Your task to perform on an android device: set the stopwatch Image 0: 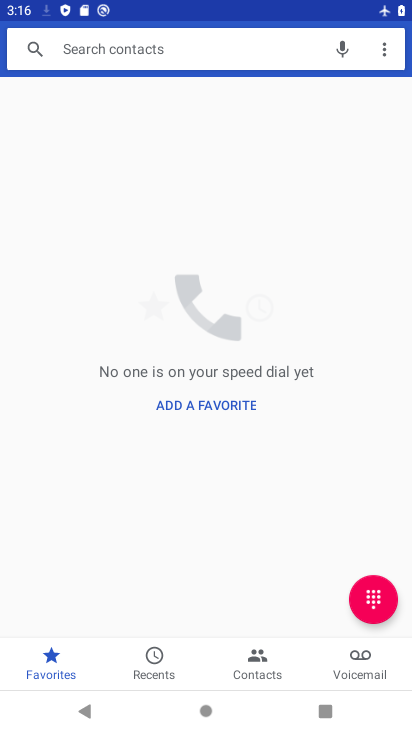
Step 0: press back button
Your task to perform on an android device: set the stopwatch Image 1: 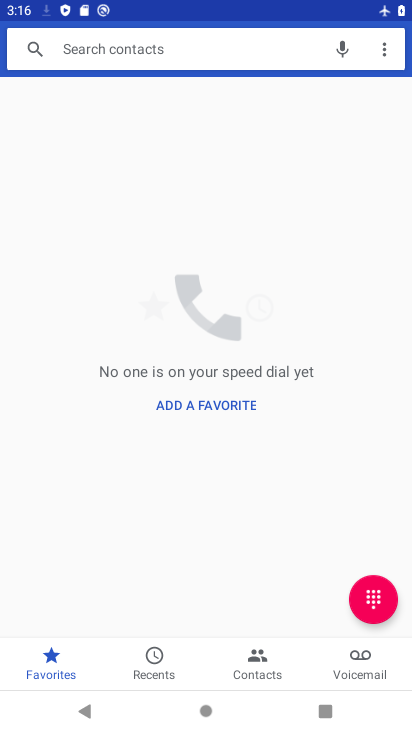
Step 1: press back button
Your task to perform on an android device: set the stopwatch Image 2: 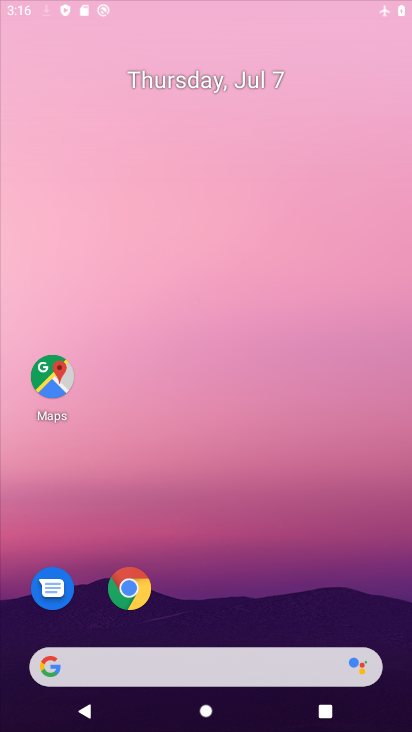
Step 2: press back button
Your task to perform on an android device: set the stopwatch Image 3: 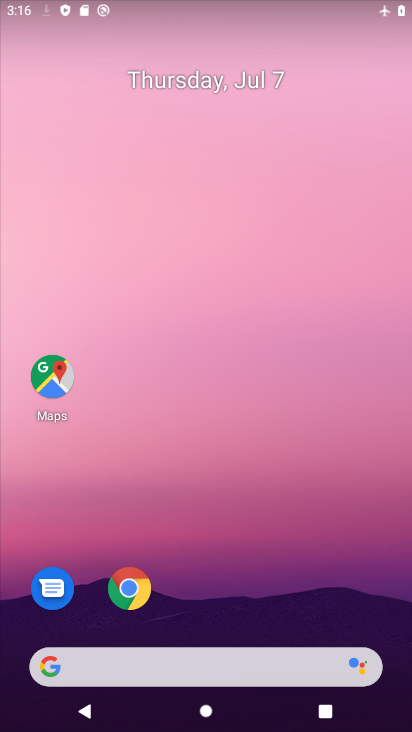
Step 3: drag from (323, 437) to (318, 385)
Your task to perform on an android device: set the stopwatch Image 4: 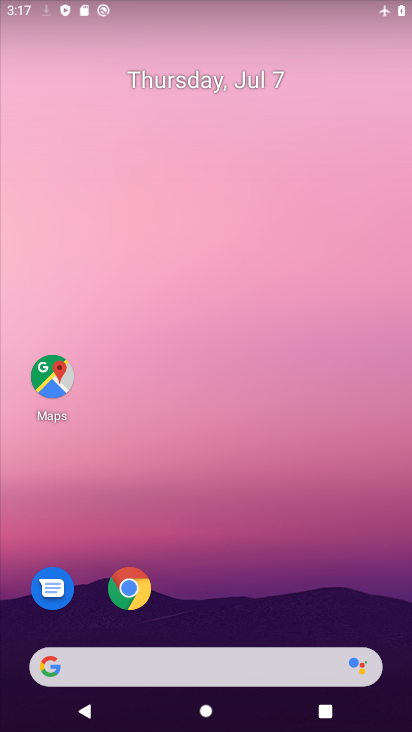
Step 4: press back button
Your task to perform on an android device: set the stopwatch Image 5: 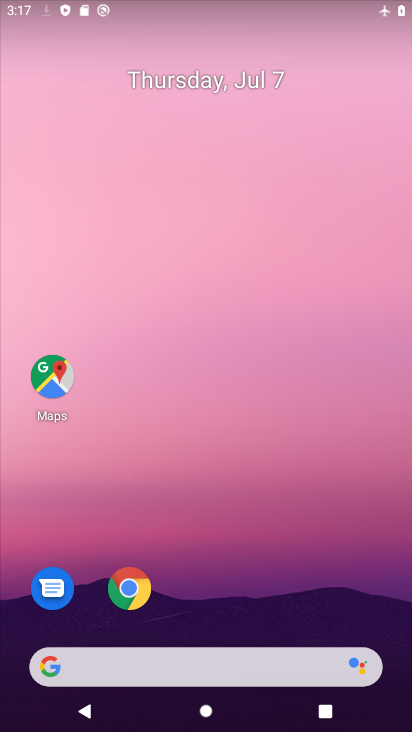
Step 5: drag from (299, 609) to (234, 194)
Your task to perform on an android device: set the stopwatch Image 6: 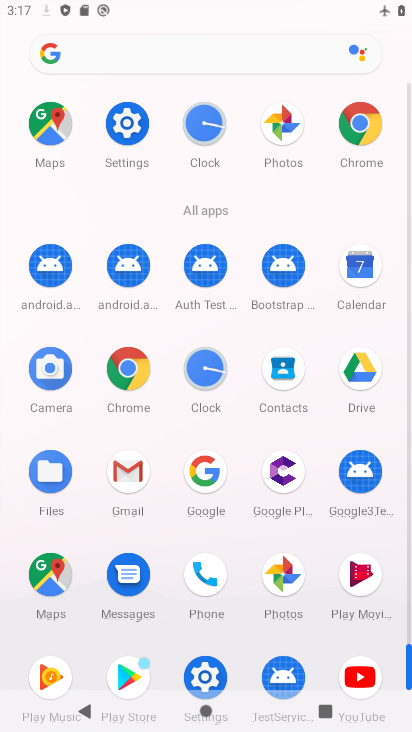
Step 6: drag from (308, 571) to (99, 198)
Your task to perform on an android device: set the stopwatch Image 7: 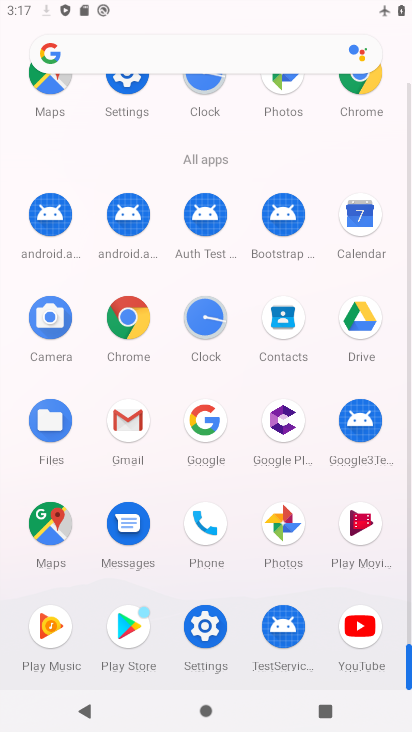
Step 7: click (218, 367)
Your task to perform on an android device: set the stopwatch Image 8: 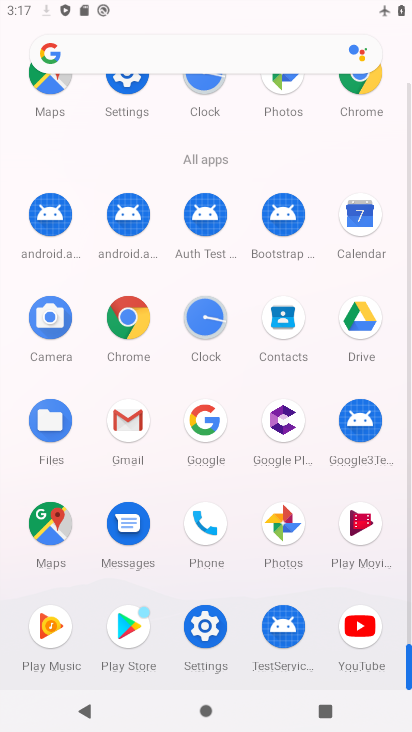
Step 8: click (203, 319)
Your task to perform on an android device: set the stopwatch Image 9: 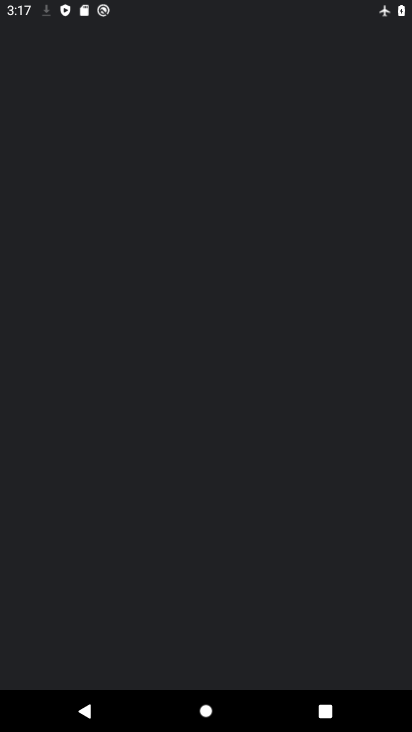
Step 9: click (207, 312)
Your task to perform on an android device: set the stopwatch Image 10: 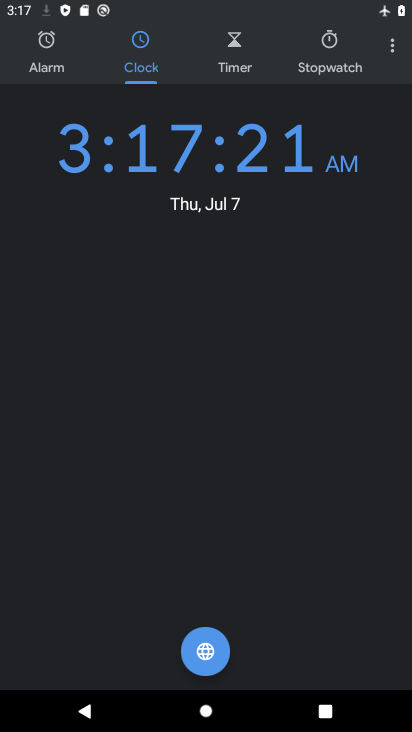
Step 10: click (211, 312)
Your task to perform on an android device: set the stopwatch Image 11: 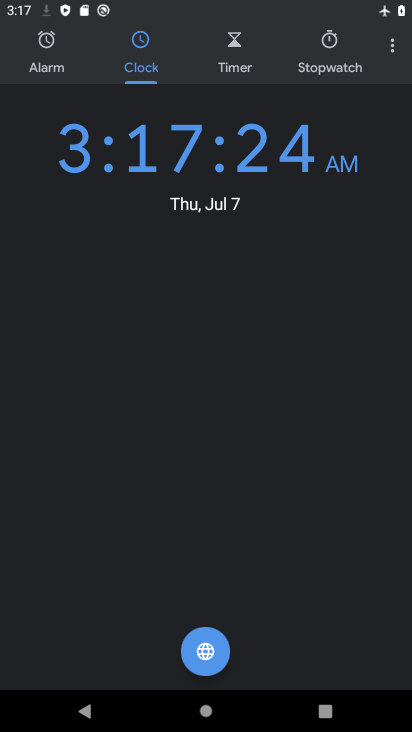
Step 11: click (336, 56)
Your task to perform on an android device: set the stopwatch Image 12: 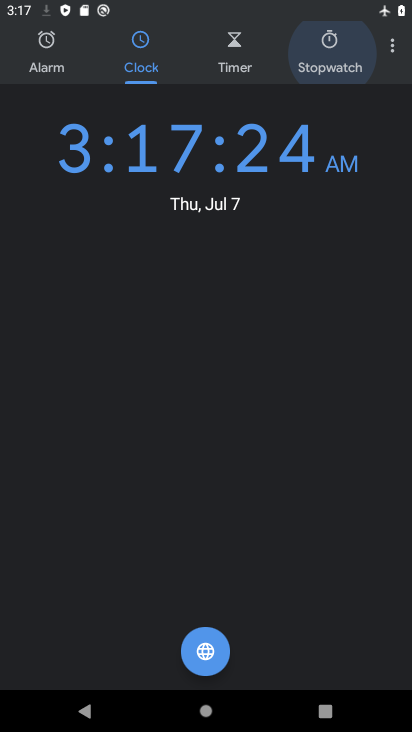
Step 12: click (337, 58)
Your task to perform on an android device: set the stopwatch Image 13: 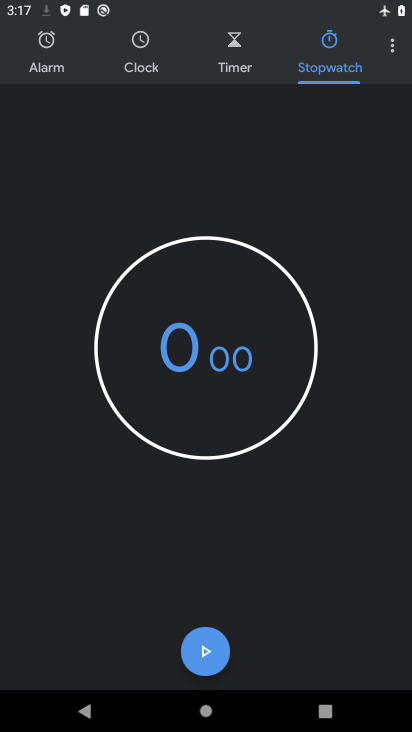
Step 13: click (353, 81)
Your task to perform on an android device: set the stopwatch Image 14: 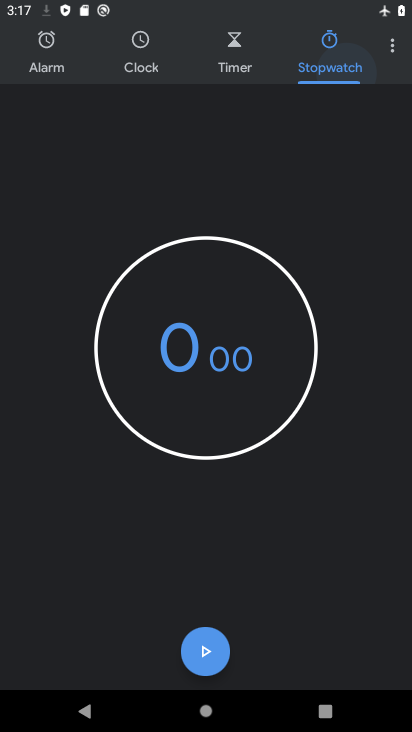
Step 14: click (354, 82)
Your task to perform on an android device: set the stopwatch Image 15: 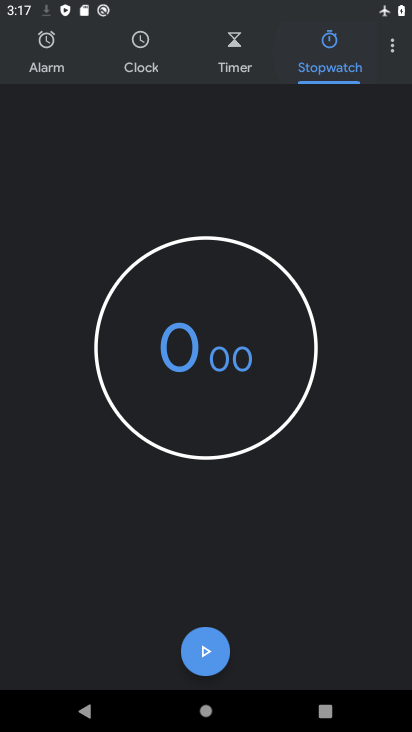
Step 15: click (354, 82)
Your task to perform on an android device: set the stopwatch Image 16: 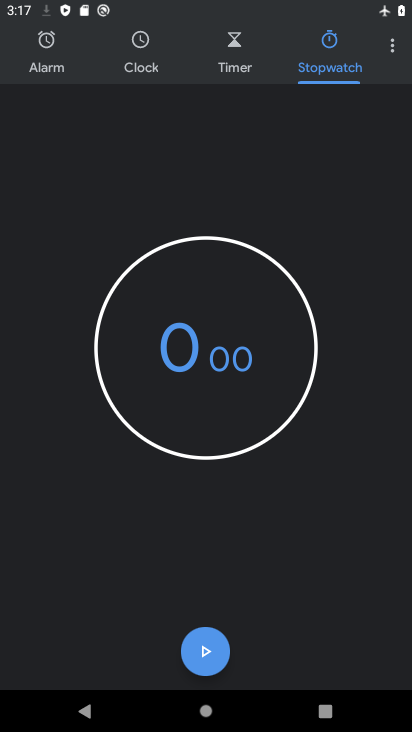
Step 16: click (204, 658)
Your task to perform on an android device: set the stopwatch Image 17: 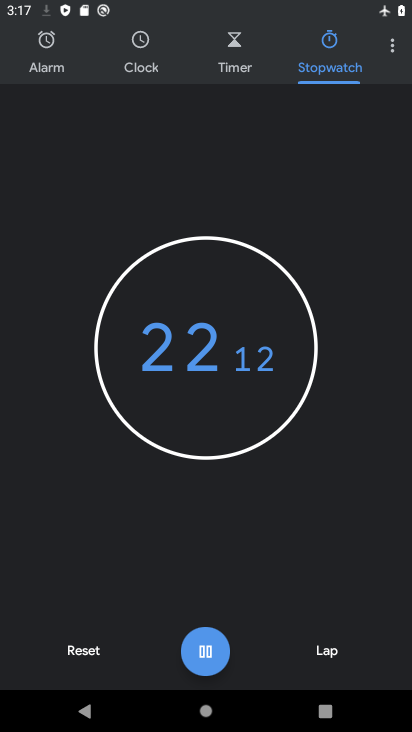
Step 17: click (205, 651)
Your task to perform on an android device: set the stopwatch Image 18: 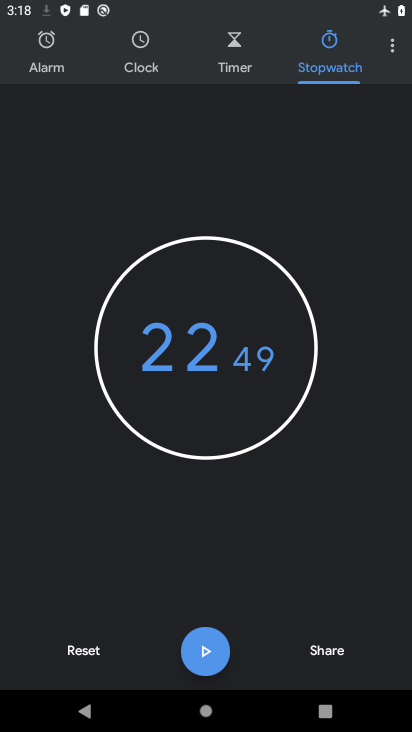
Step 18: task complete